Your task to perform on an android device: open the mobile data screen to see how much data has been used Image 0: 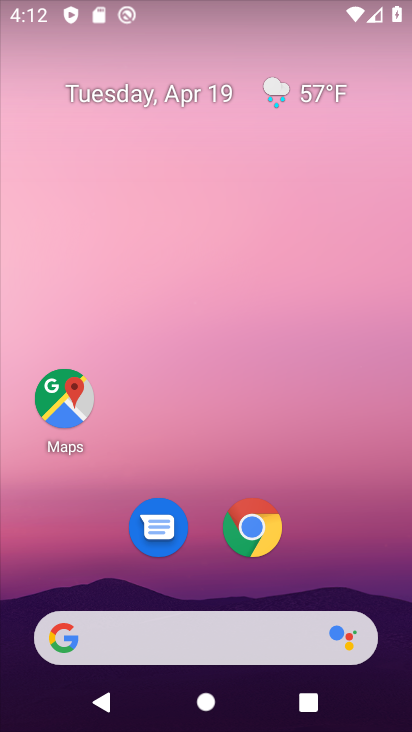
Step 0: drag from (397, 640) to (334, 155)
Your task to perform on an android device: open the mobile data screen to see how much data has been used Image 1: 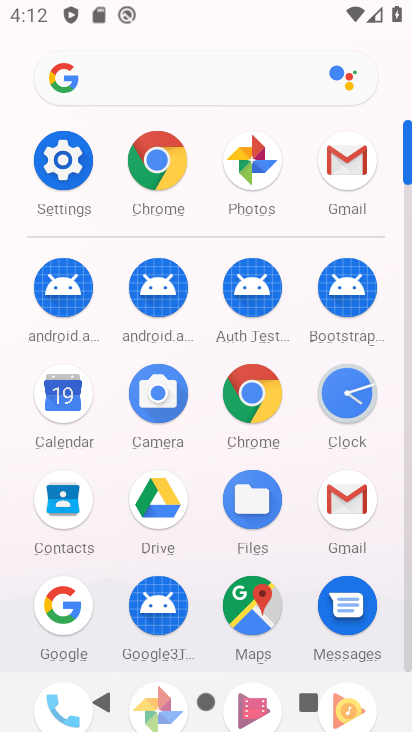
Step 1: click (406, 657)
Your task to perform on an android device: open the mobile data screen to see how much data has been used Image 2: 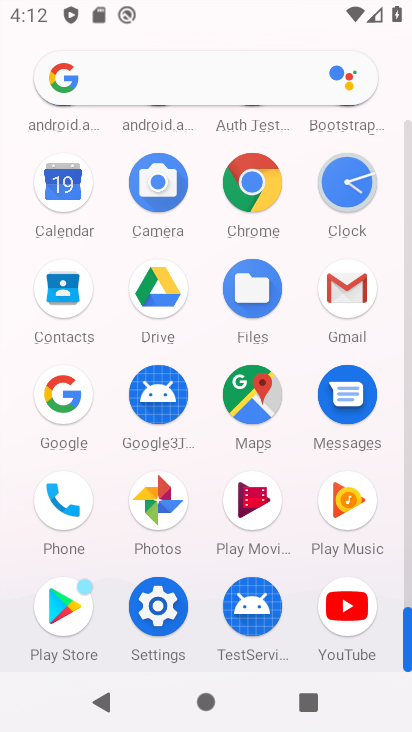
Step 2: click (157, 603)
Your task to perform on an android device: open the mobile data screen to see how much data has been used Image 3: 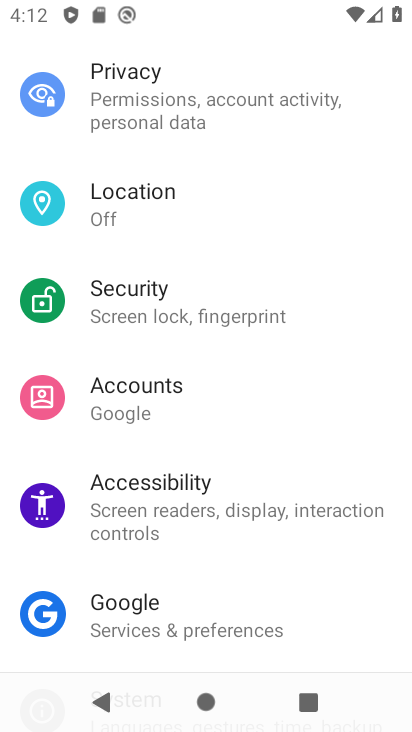
Step 3: drag from (373, 172) to (364, 486)
Your task to perform on an android device: open the mobile data screen to see how much data has been used Image 4: 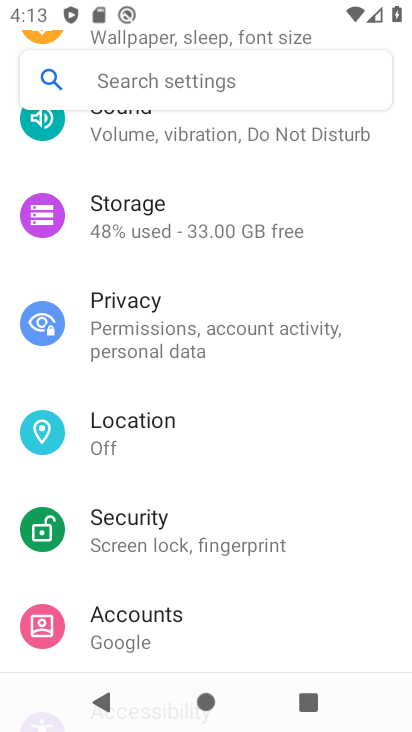
Step 4: drag from (354, 197) to (355, 531)
Your task to perform on an android device: open the mobile data screen to see how much data has been used Image 5: 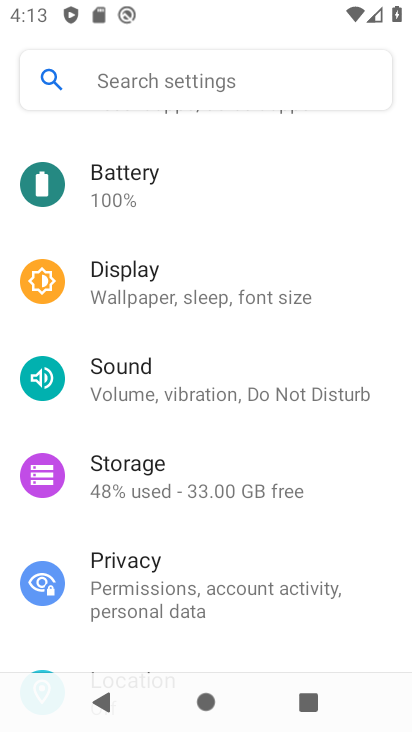
Step 5: drag from (371, 213) to (369, 637)
Your task to perform on an android device: open the mobile data screen to see how much data has been used Image 6: 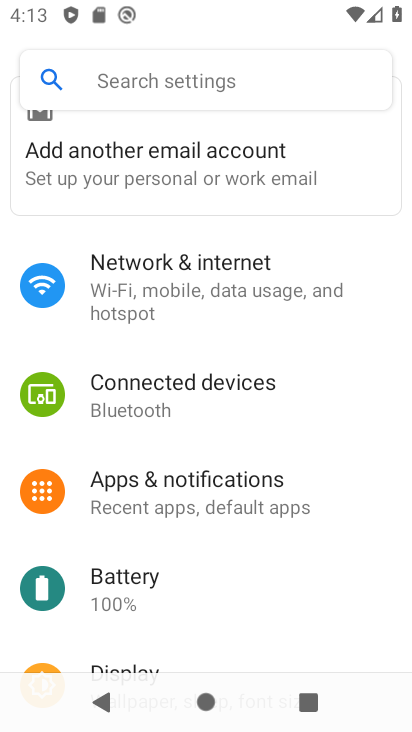
Step 6: click (138, 280)
Your task to perform on an android device: open the mobile data screen to see how much data has been used Image 7: 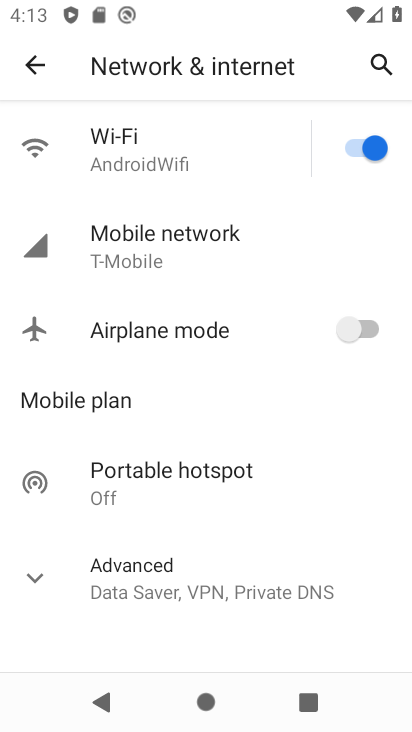
Step 7: click (135, 252)
Your task to perform on an android device: open the mobile data screen to see how much data has been used Image 8: 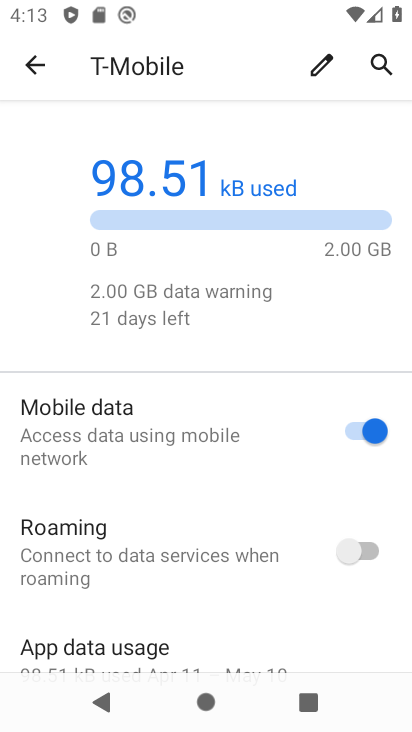
Step 8: task complete